Your task to perform on an android device: set an alarm Image 0: 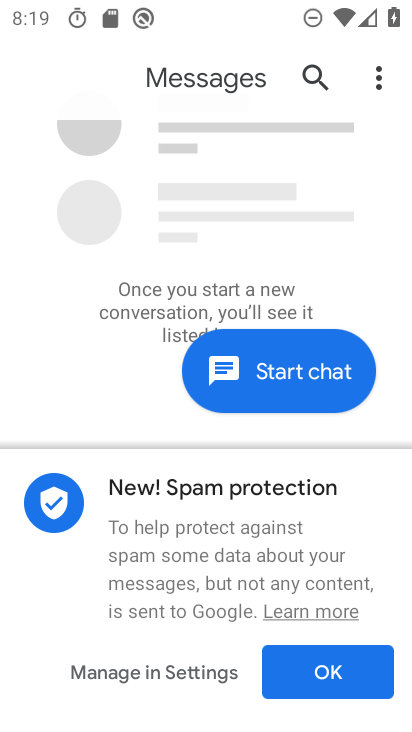
Step 0: press home button
Your task to perform on an android device: set an alarm Image 1: 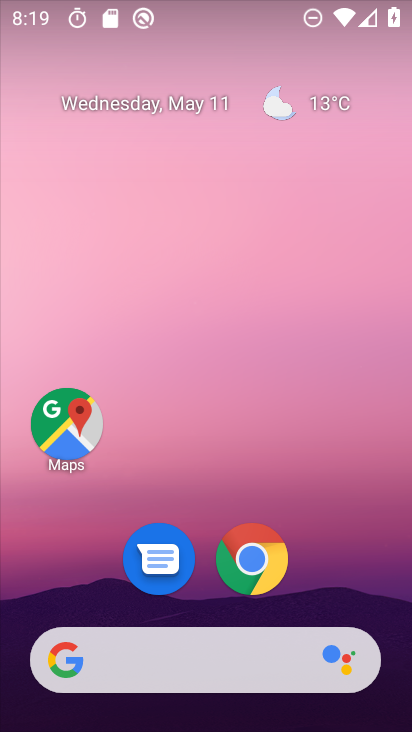
Step 1: drag from (364, 580) to (357, 0)
Your task to perform on an android device: set an alarm Image 2: 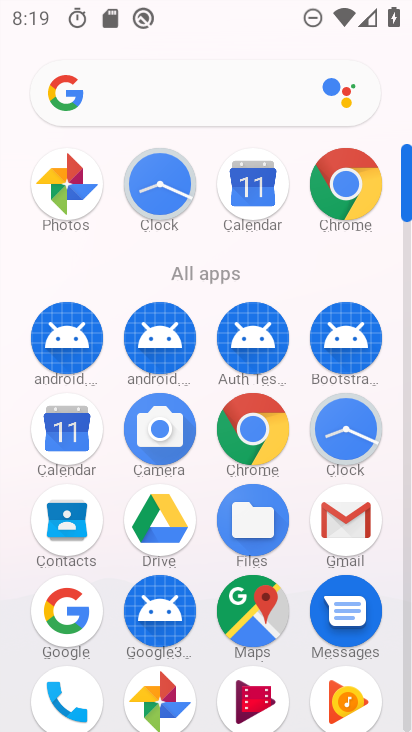
Step 2: click (355, 418)
Your task to perform on an android device: set an alarm Image 3: 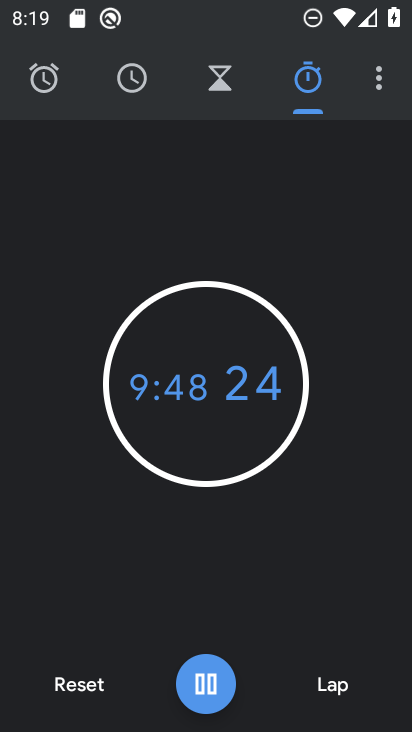
Step 3: click (42, 81)
Your task to perform on an android device: set an alarm Image 4: 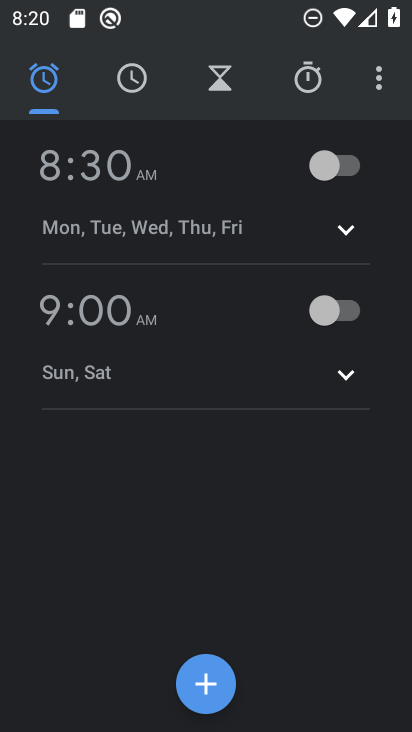
Step 4: click (335, 313)
Your task to perform on an android device: set an alarm Image 5: 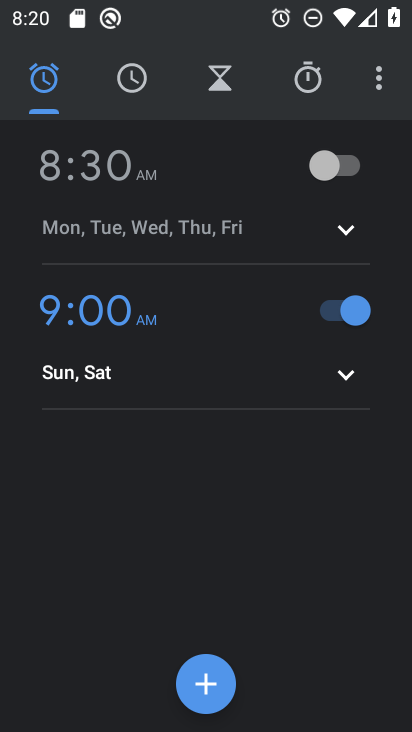
Step 5: task complete